Your task to perform on an android device: turn off notifications in google photos Image 0: 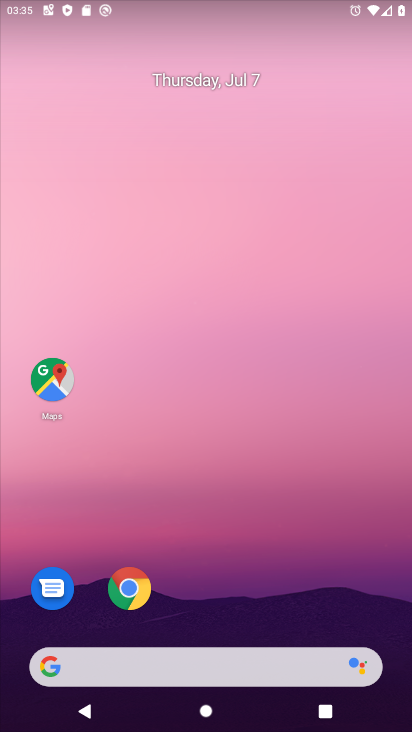
Step 0: drag from (215, 653) to (261, 223)
Your task to perform on an android device: turn off notifications in google photos Image 1: 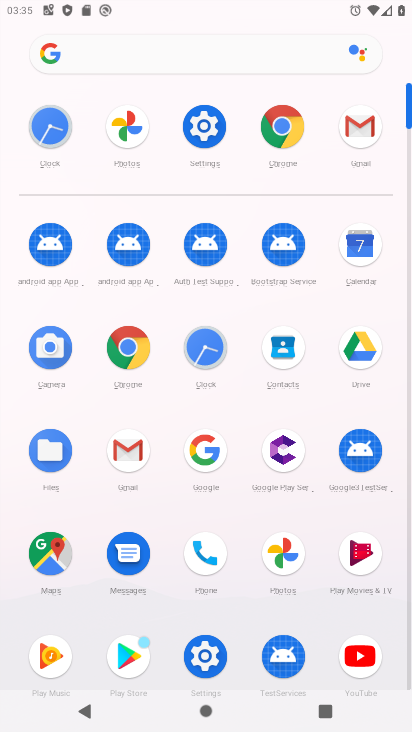
Step 1: click (118, 130)
Your task to perform on an android device: turn off notifications in google photos Image 2: 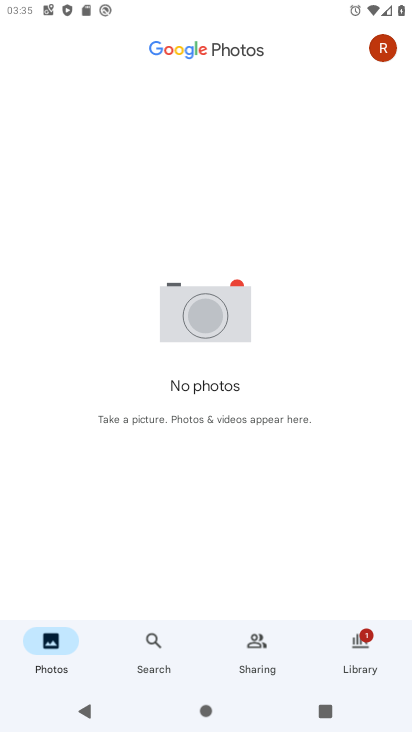
Step 2: click (387, 49)
Your task to perform on an android device: turn off notifications in google photos Image 3: 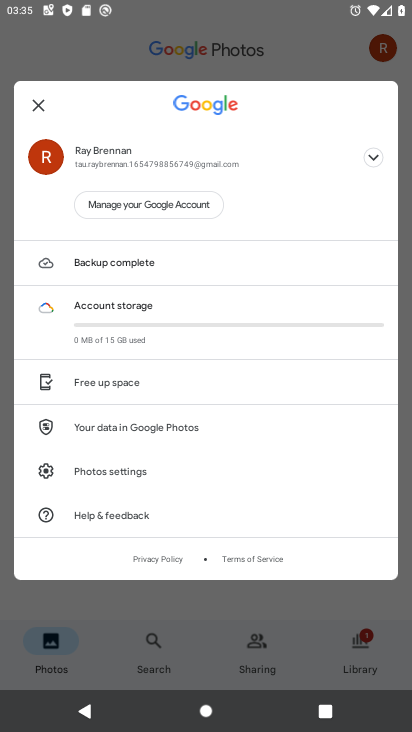
Step 3: click (96, 475)
Your task to perform on an android device: turn off notifications in google photos Image 4: 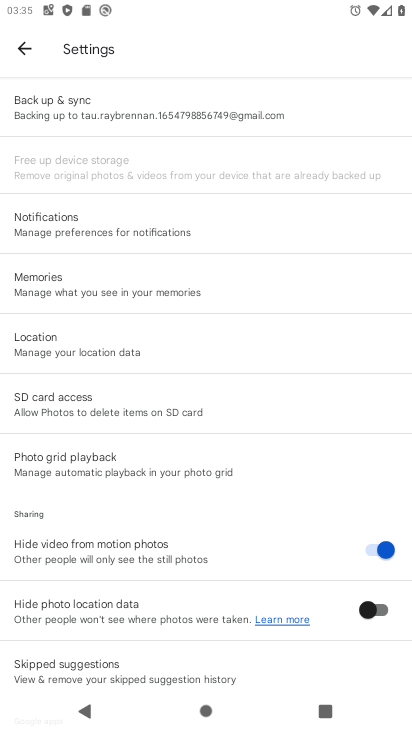
Step 4: click (42, 227)
Your task to perform on an android device: turn off notifications in google photos Image 5: 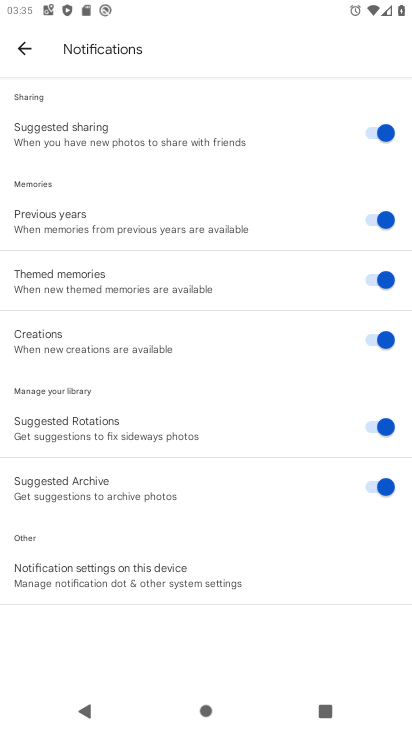
Step 5: click (99, 572)
Your task to perform on an android device: turn off notifications in google photos Image 6: 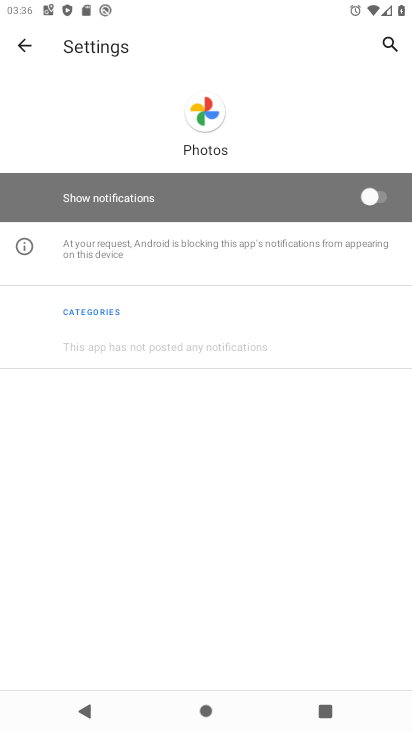
Step 6: task complete